Your task to perform on an android device: toggle show notifications on the lock screen Image 0: 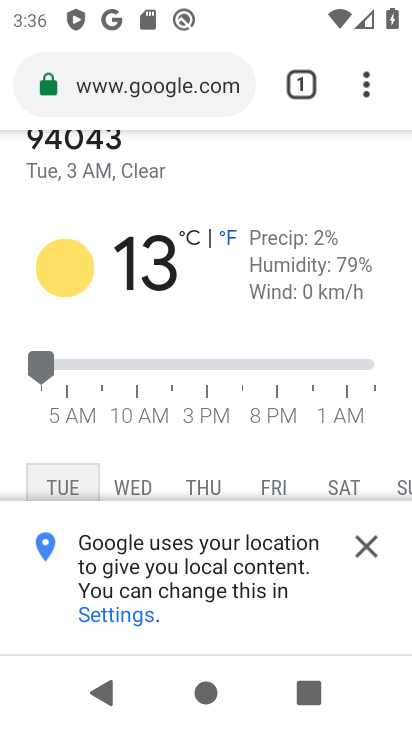
Step 0: press home button
Your task to perform on an android device: toggle show notifications on the lock screen Image 1: 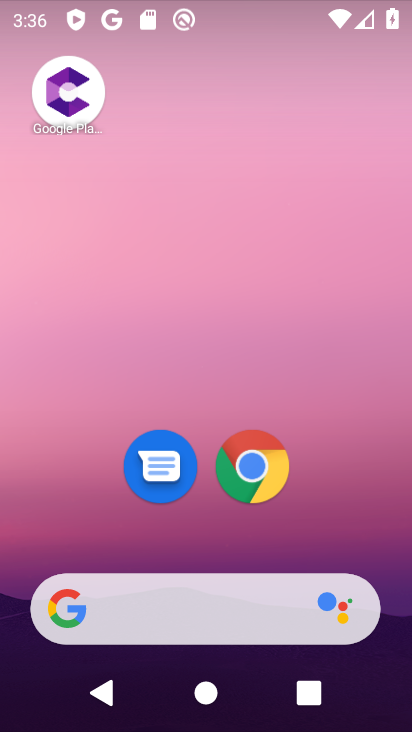
Step 1: drag from (319, 476) to (295, 167)
Your task to perform on an android device: toggle show notifications on the lock screen Image 2: 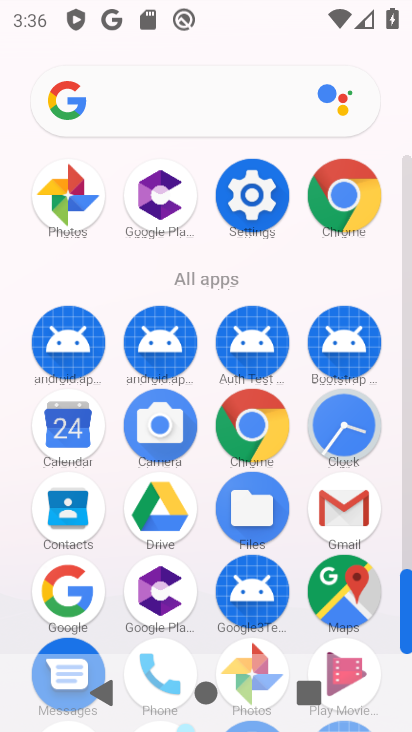
Step 2: click (243, 198)
Your task to perform on an android device: toggle show notifications on the lock screen Image 3: 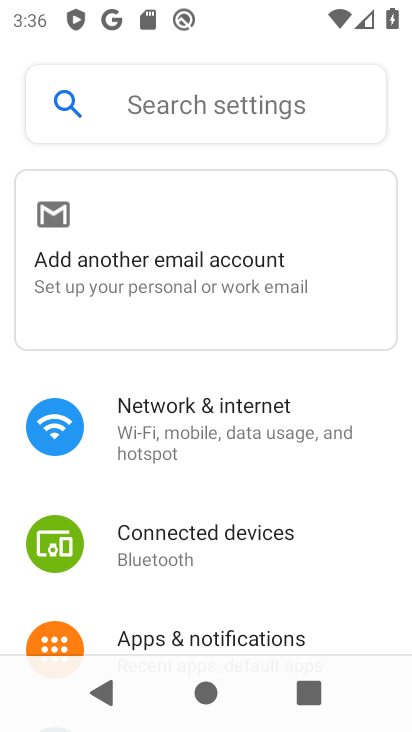
Step 3: drag from (214, 379) to (256, 190)
Your task to perform on an android device: toggle show notifications on the lock screen Image 4: 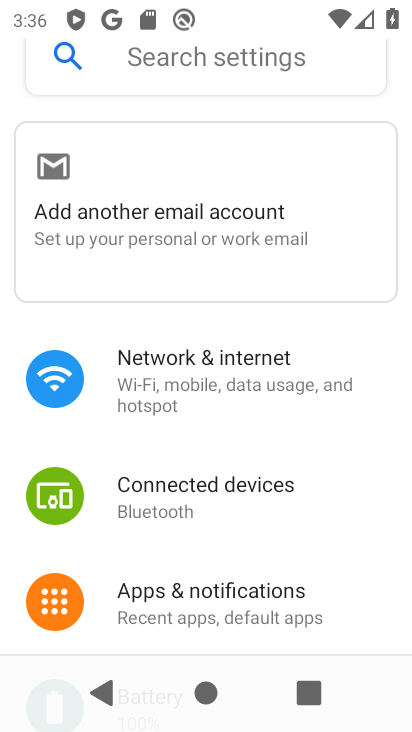
Step 4: click (186, 592)
Your task to perform on an android device: toggle show notifications on the lock screen Image 5: 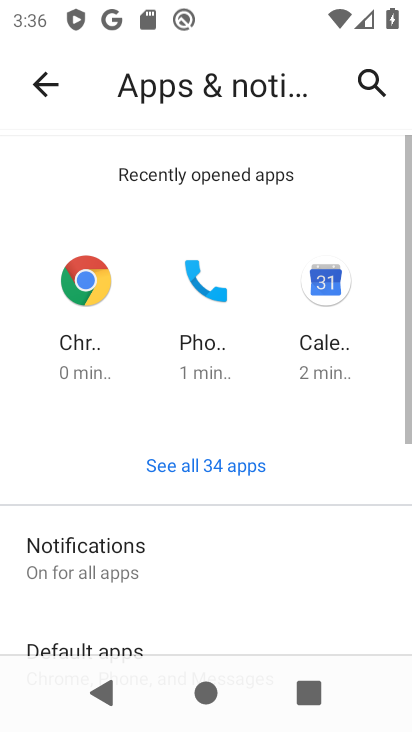
Step 5: drag from (206, 572) to (258, 153)
Your task to perform on an android device: toggle show notifications on the lock screen Image 6: 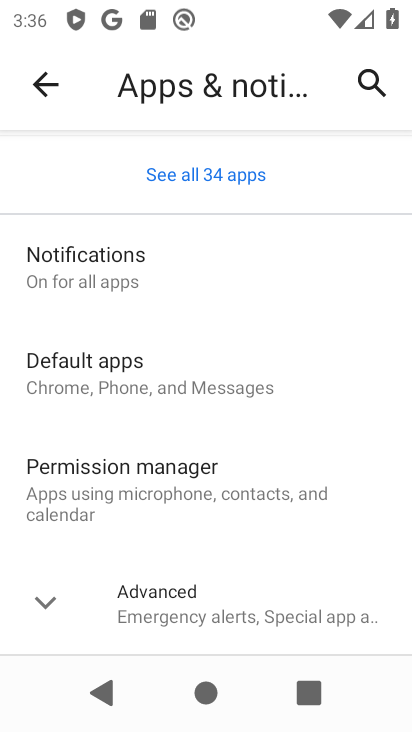
Step 6: click (166, 282)
Your task to perform on an android device: toggle show notifications on the lock screen Image 7: 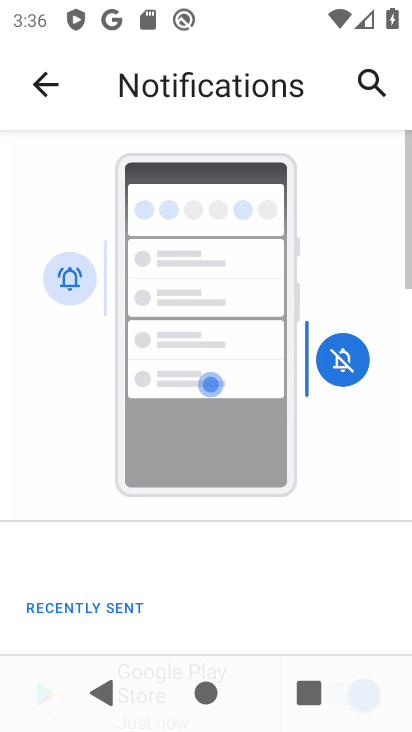
Step 7: drag from (187, 592) to (208, 126)
Your task to perform on an android device: toggle show notifications on the lock screen Image 8: 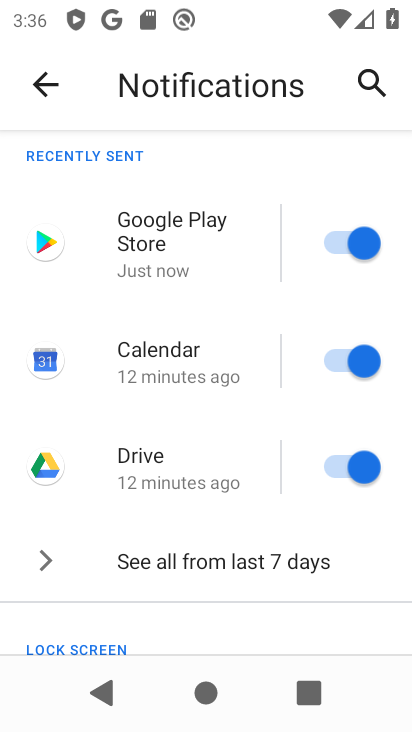
Step 8: drag from (208, 572) to (250, 171)
Your task to perform on an android device: toggle show notifications on the lock screen Image 9: 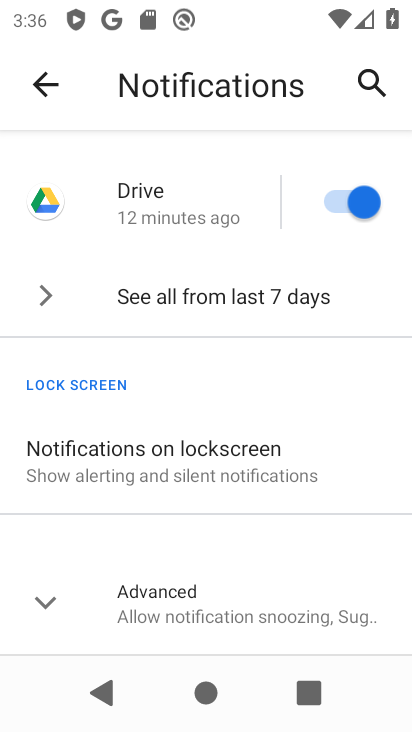
Step 9: click (188, 474)
Your task to perform on an android device: toggle show notifications on the lock screen Image 10: 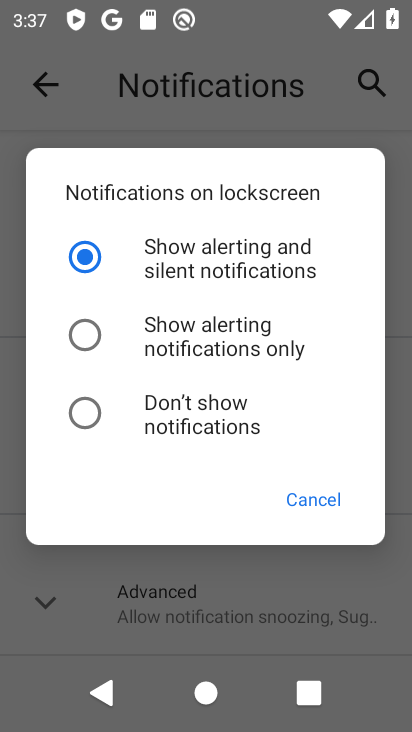
Step 10: click (224, 336)
Your task to perform on an android device: toggle show notifications on the lock screen Image 11: 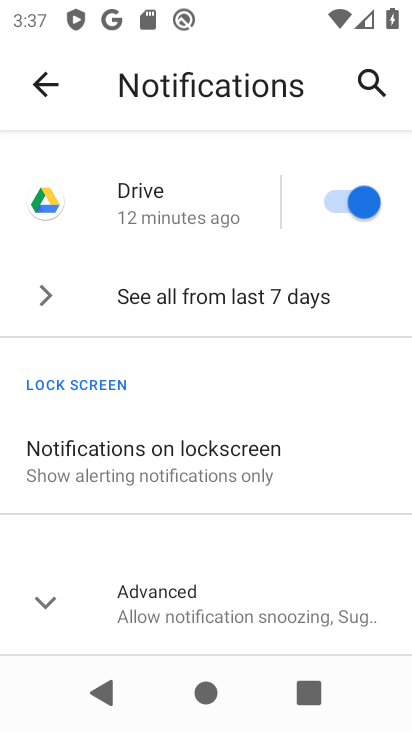
Step 11: task complete